Your task to perform on an android device: uninstall "Indeed Job Search" Image 0: 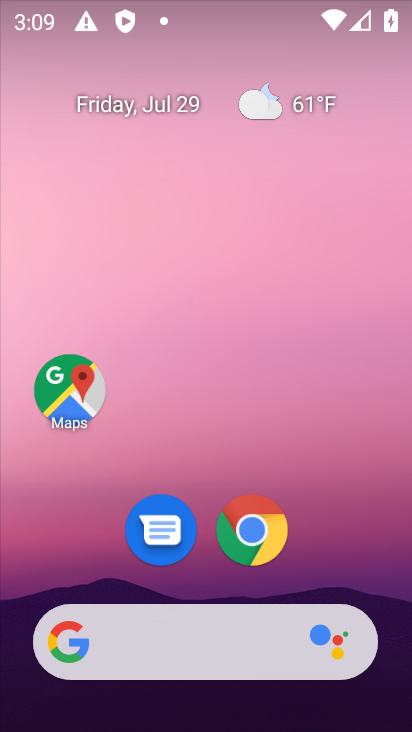
Step 0: drag from (328, 591) to (343, 7)
Your task to perform on an android device: uninstall "Indeed Job Search" Image 1: 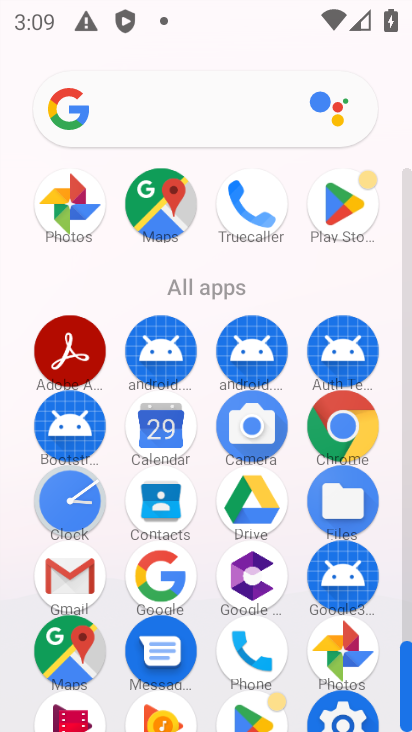
Step 1: click (339, 202)
Your task to perform on an android device: uninstall "Indeed Job Search" Image 2: 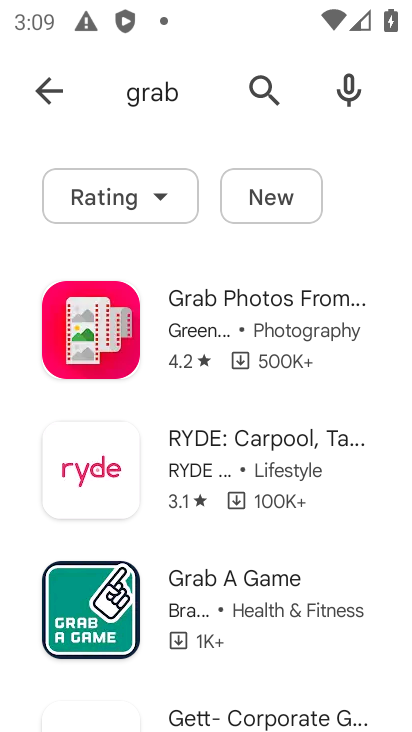
Step 2: click (267, 90)
Your task to perform on an android device: uninstall "Indeed Job Search" Image 3: 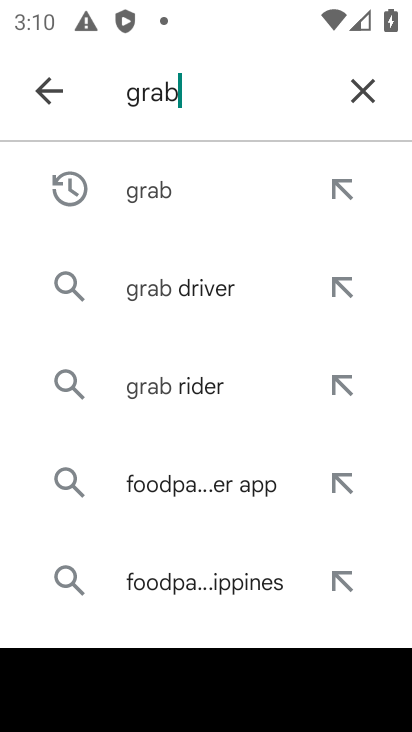
Step 3: click (361, 97)
Your task to perform on an android device: uninstall "Indeed Job Search" Image 4: 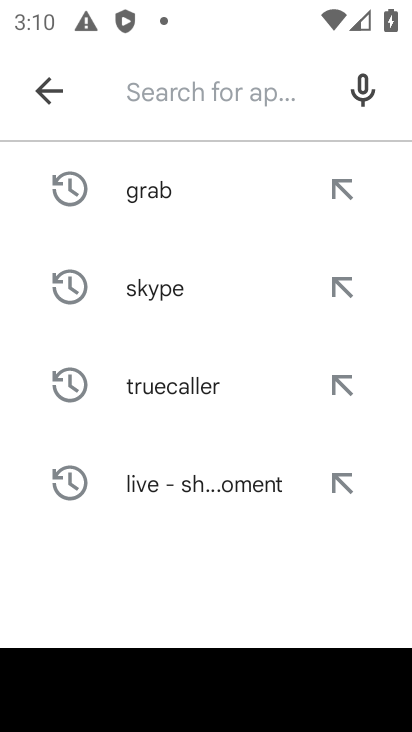
Step 4: type "Indeed Job Search"
Your task to perform on an android device: uninstall "Indeed Job Search" Image 5: 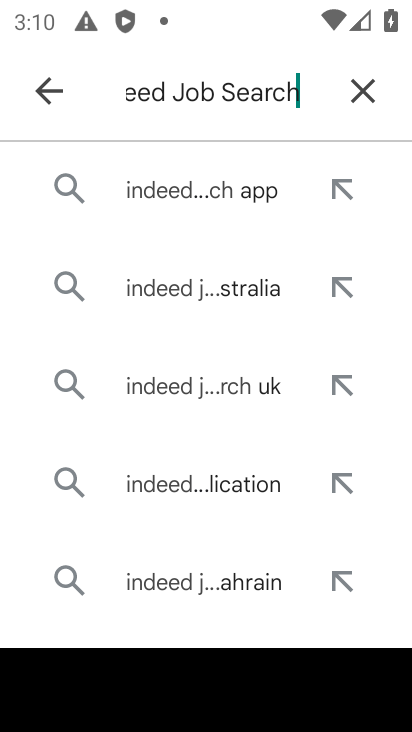
Step 5: click (158, 201)
Your task to perform on an android device: uninstall "Indeed Job Search" Image 6: 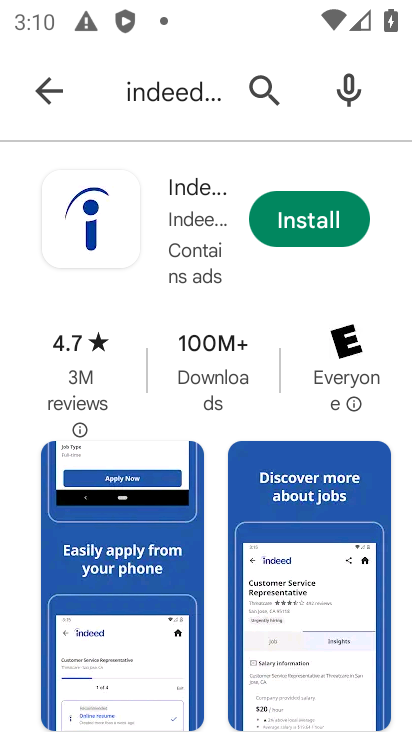
Step 6: task complete